Your task to perform on an android device: Open the phone app and click the voicemail tab. Image 0: 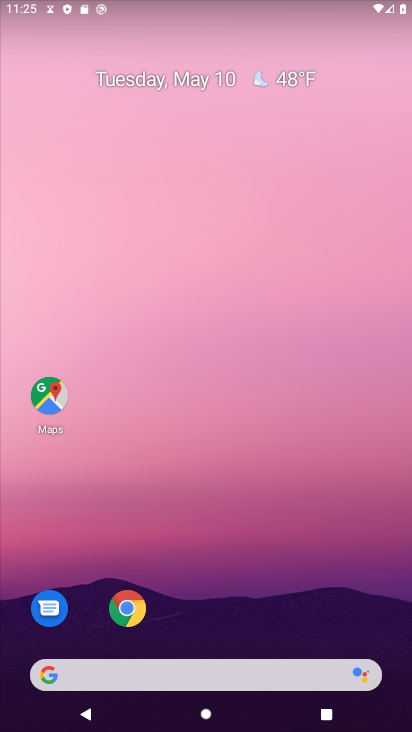
Step 0: click (126, 589)
Your task to perform on an android device: Open the phone app and click the voicemail tab. Image 1: 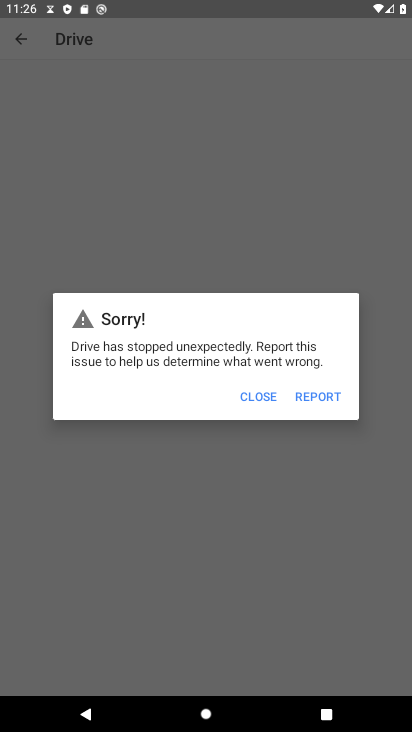
Step 1: press home button
Your task to perform on an android device: Open the phone app and click the voicemail tab. Image 2: 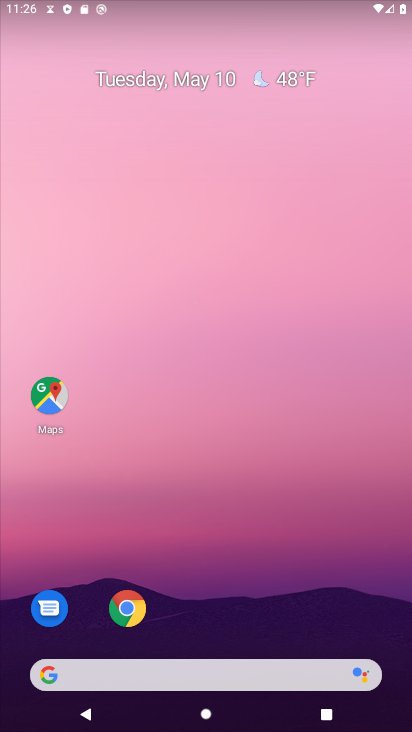
Step 2: drag from (195, 577) to (139, 187)
Your task to perform on an android device: Open the phone app and click the voicemail tab. Image 3: 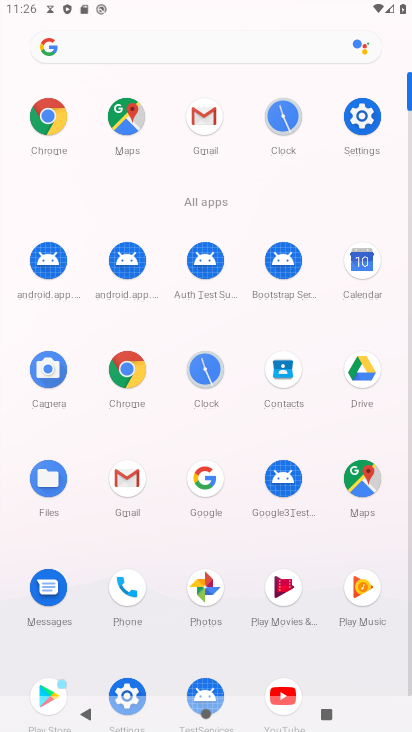
Step 3: click (124, 613)
Your task to perform on an android device: Open the phone app and click the voicemail tab. Image 4: 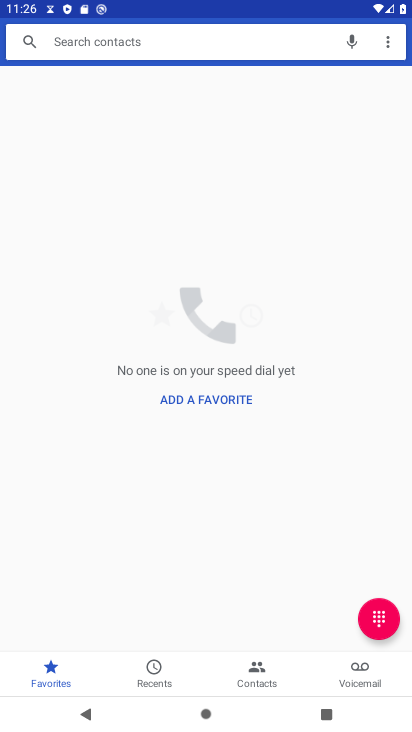
Step 4: click (352, 679)
Your task to perform on an android device: Open the phone app and click the voicemail tab. Image 5: 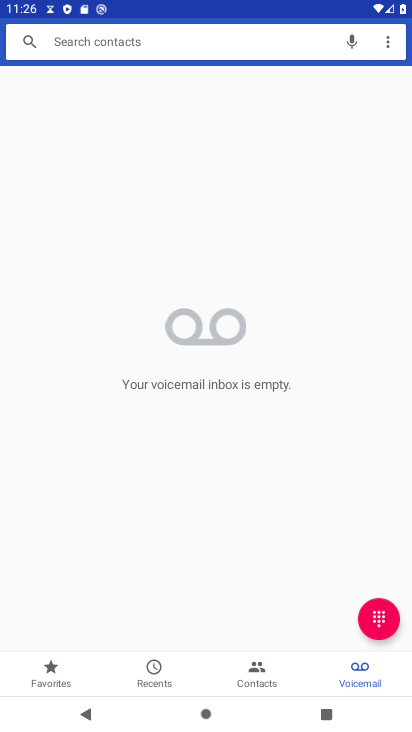
Step 5: task complete